Your task to perform on an android device: turn on the 24-hour format for clock Image 0: 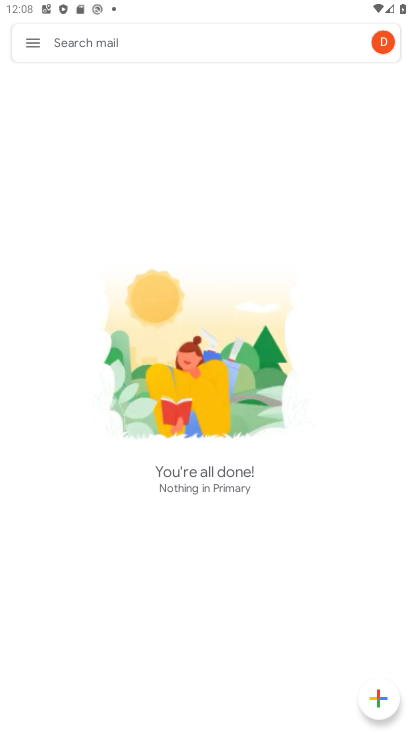
Step 0: press home button
Your task to perform on an android device: turn on the 24-hour format for clock Image 1: 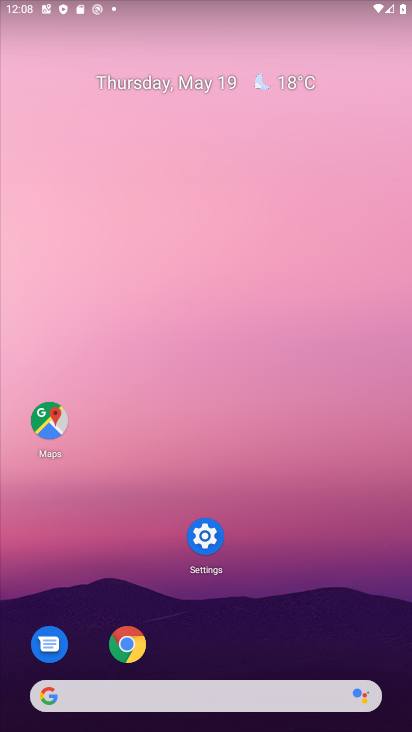
Step 1: drag from (351, 590) to (315, 139)
Your task to perform on an android device: turn on the 24-hour format for clock Image 2: 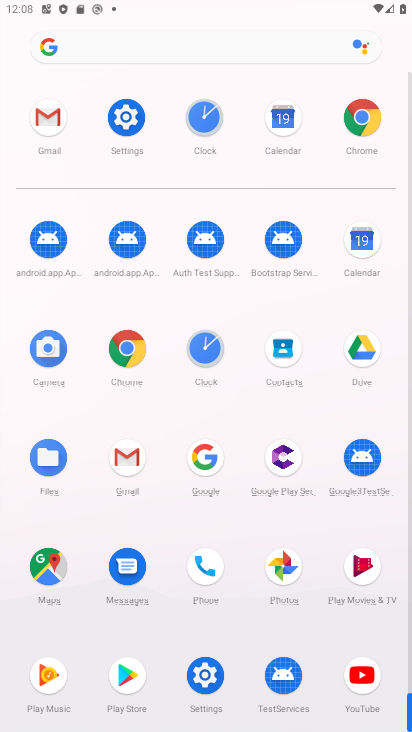
Step 2: click (207, 116)
Your task to perform on an android device: turn on the 24-hour format for clock Image 3: 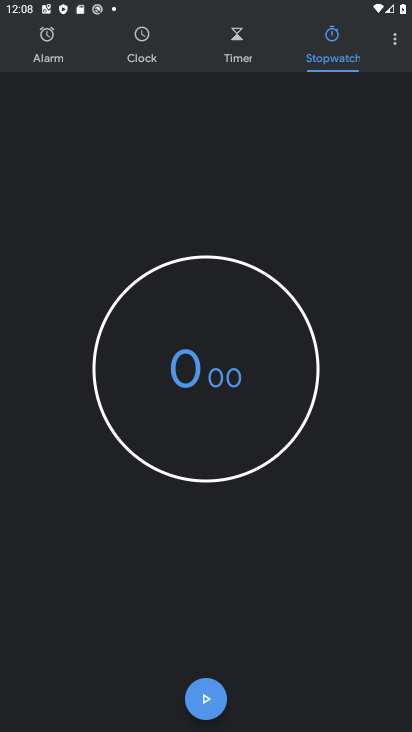
Step 3: click (396, 40)
Your task to perform on an android device: turn on the 24-hour format for clock Image 4: 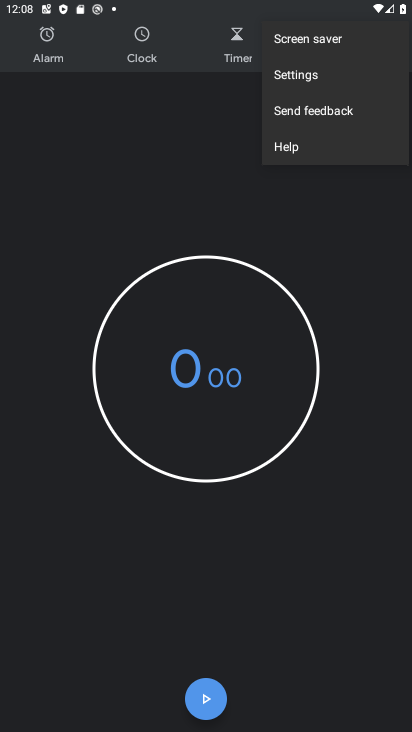
Step 4: click (307, 76)
Your task to perform on an android device: turn on the 24-hour format for clock Image 5: 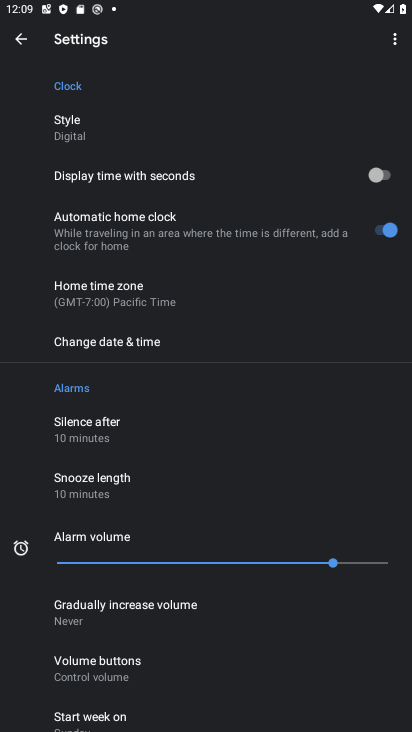
Step 5: click (124, 334)
Your task to perform on an android device: turn on the 24-hour format for clock Image 6: 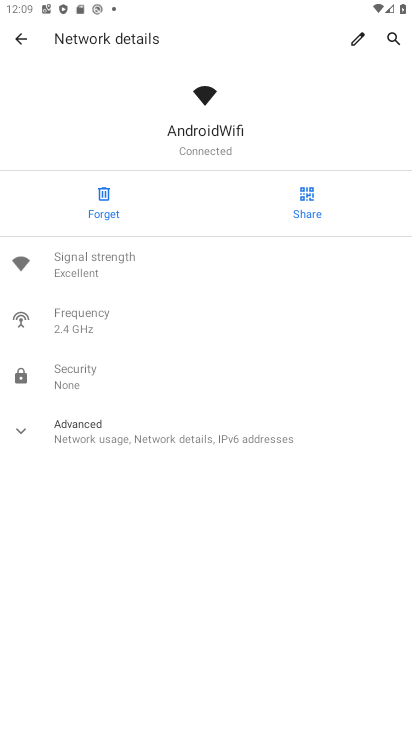
Step 6: press home button
Your task to perform on an android device: turn on the 24-hour format for clock Image 7: 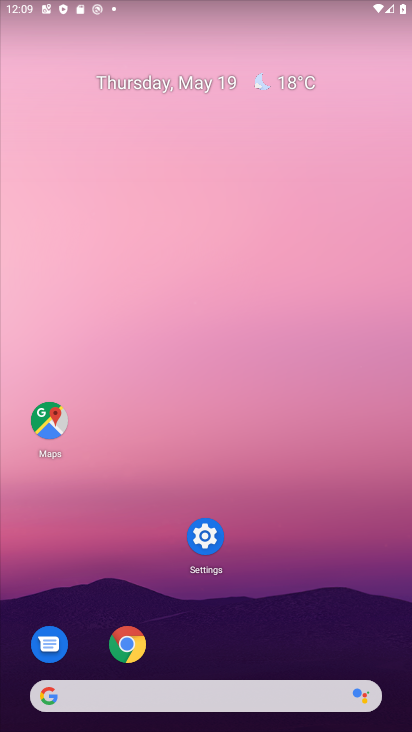
Step 7: drag from (263, 567) to (243, 126)
Your task to perform on an android device: turn on the 24-hour format for clock Image 8: 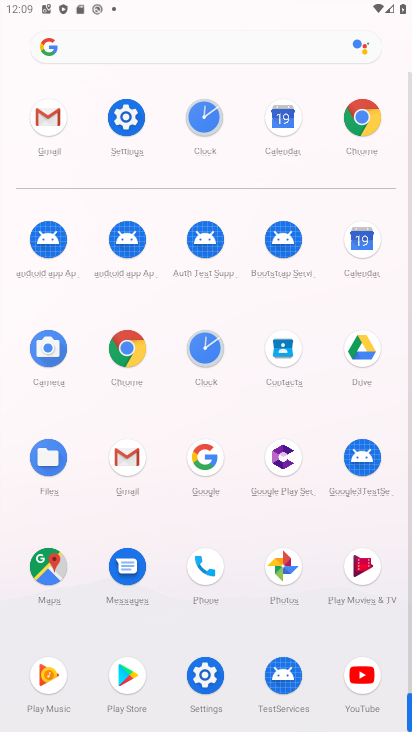
Step 8: click (210, 353)
Your task to perform on an android device: turn on the 24-hour format for clock Image 9: 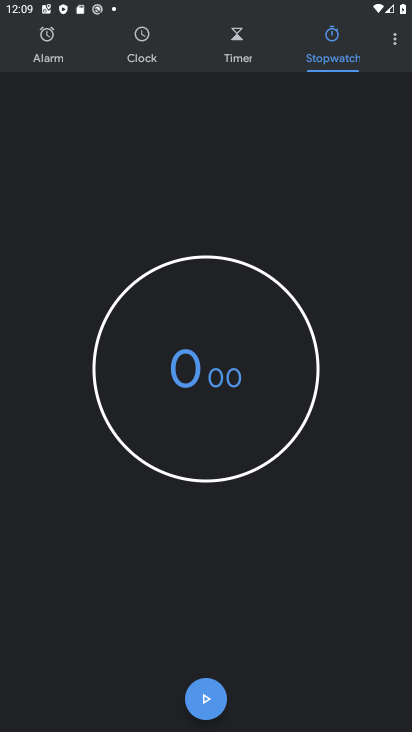
Step 9: click (394, 42)
Your task to perform on an android device: turn on the 24-hour format for clock Image 10: 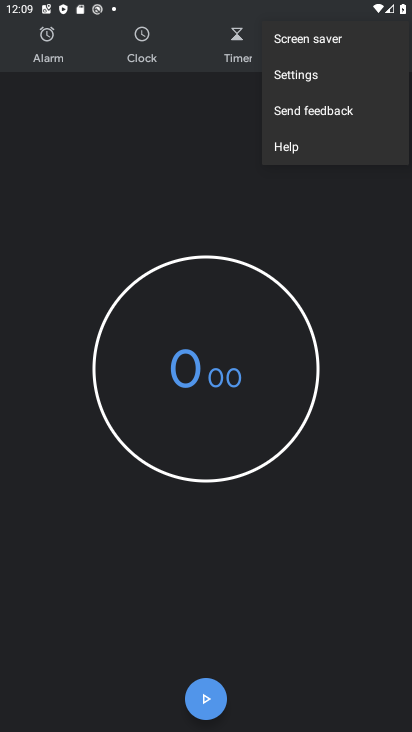
Step 10: click (291, 79)
Your task to perform on an android device: turn on the 24-hour format for clock Image 11: 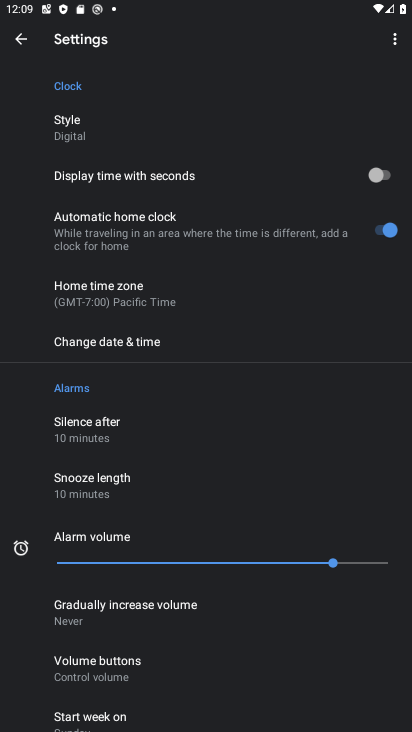
Step 11: click (136, 342)
Your task to perform on an android device: turn on the 24-hour format for clock Image 12: 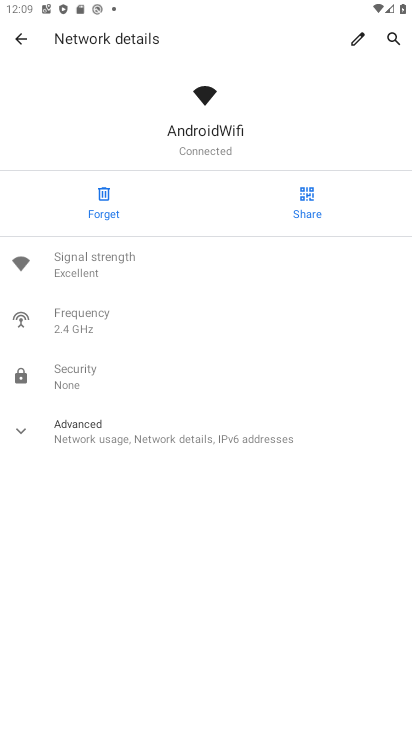
Step 12: click (25, 37)
Your task to perform on an android device: turn on the 24-hour format for clock Image 13: 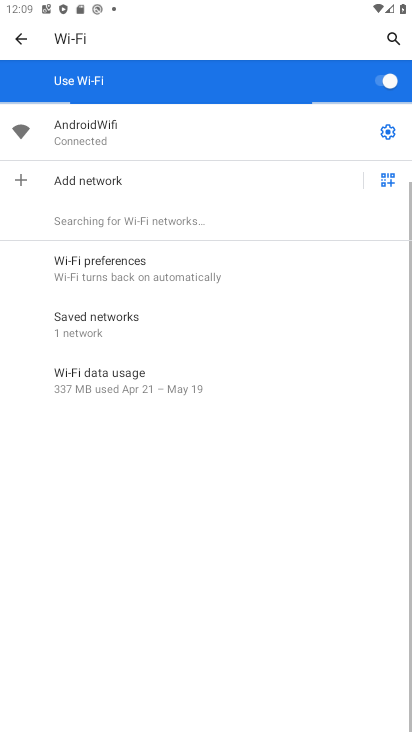
Step 13: press back button
Your task to perform on an android device: turn on the 24-hour format for clock Image 14: 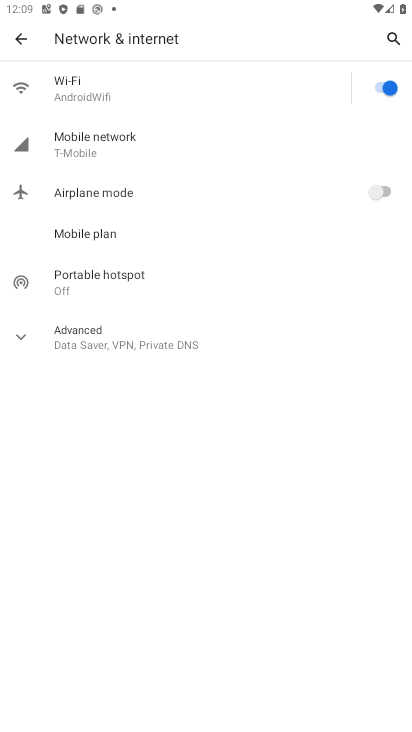
Step 14: press back button
Your task to perform on an android device: turn on the 24-hour format for clock Image 15: 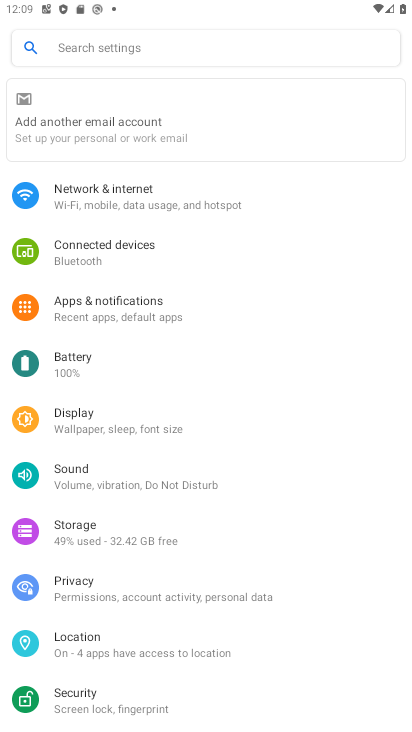
Step 15: press back button
Your task to perform on an android device: turn on the 24-hour format for clock Image 16: 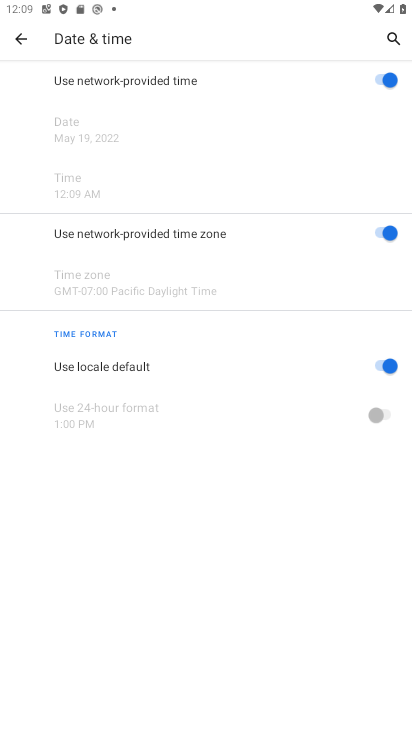
Step 16: click (378, 363)
Your task to perform on an android device: turn on the 24-hour format for clock Image 17: 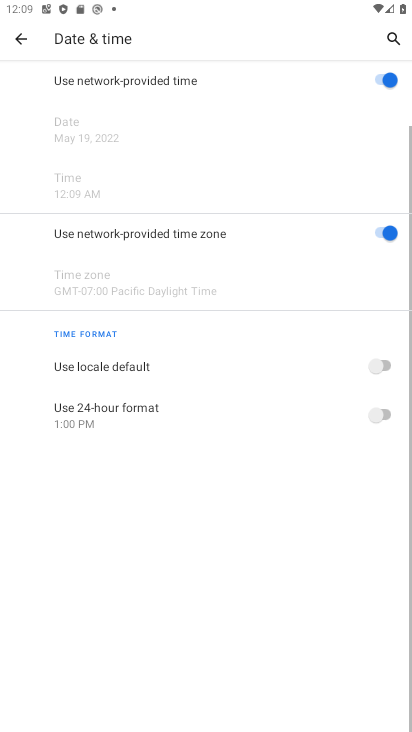
Step 17: click (384, 415)
Your task to perform on an android device: turn on the 24-hour format for clock Image 18: 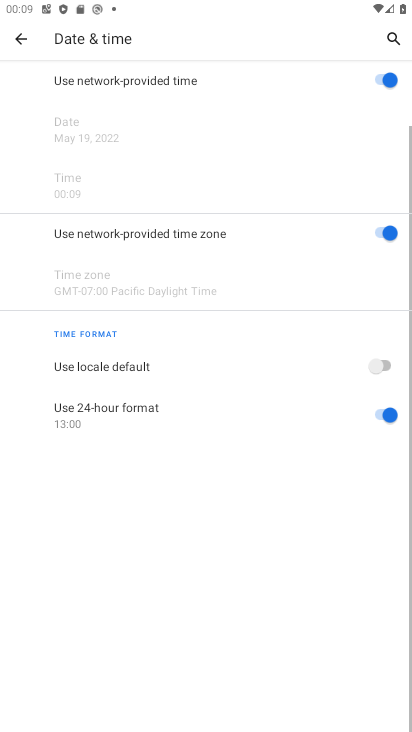
Step 18: task complete